Your task to perform on an android device: delete location history Image 0: 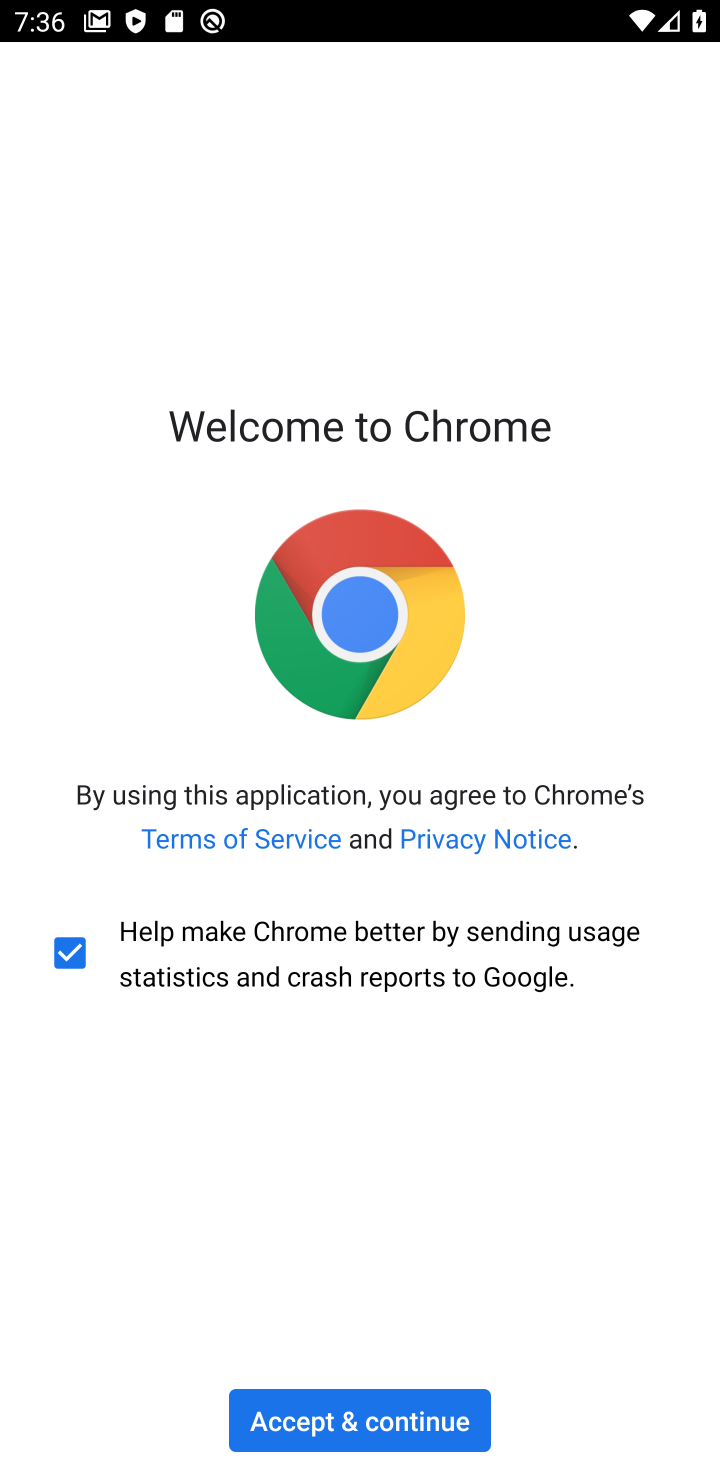
Step 0: press home button
Your task to perform on an android device: delete location history Image 1: 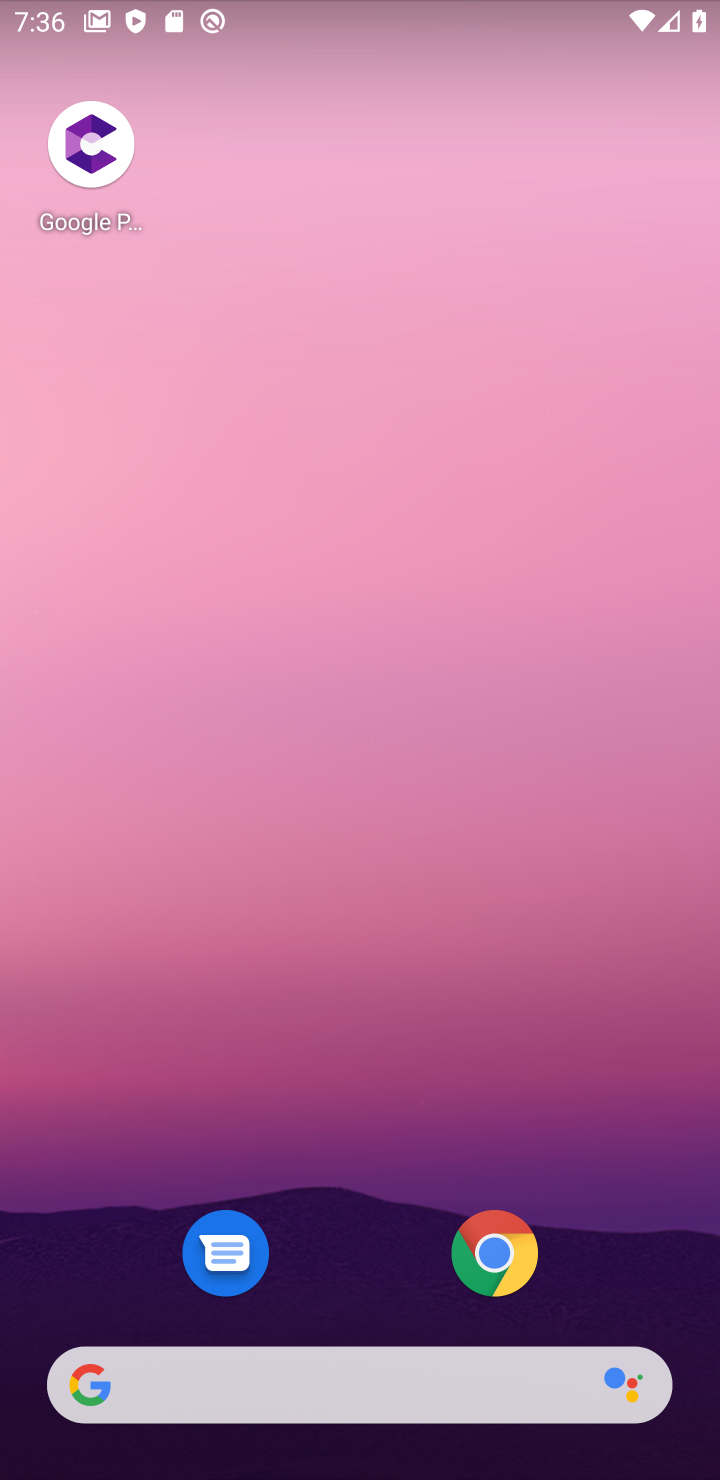
Step 1: drag from (317, 1393) to (457, 87)
Your task to perform on an android device: delete location history Image 2: 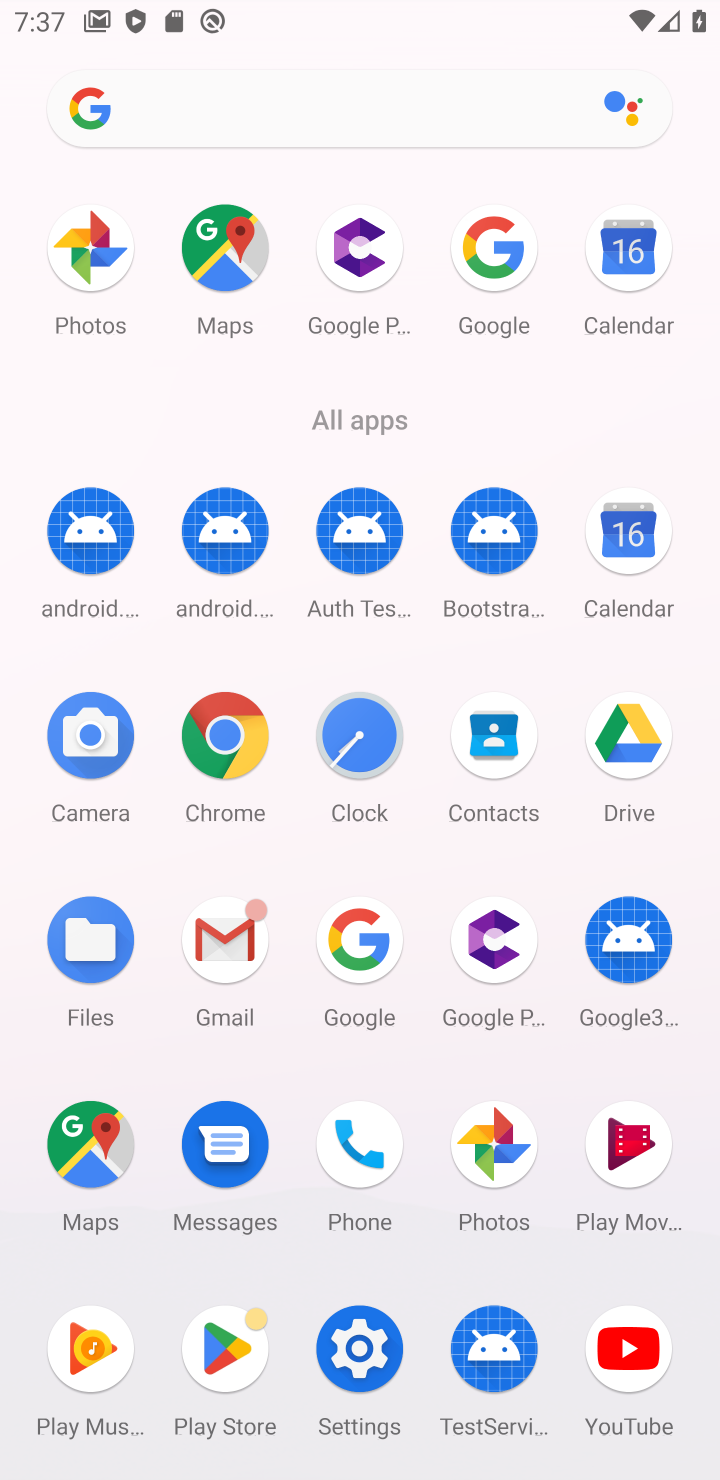
Step 2: click (224, 253)
Your task to perform on an android device: delete location history Image 3: 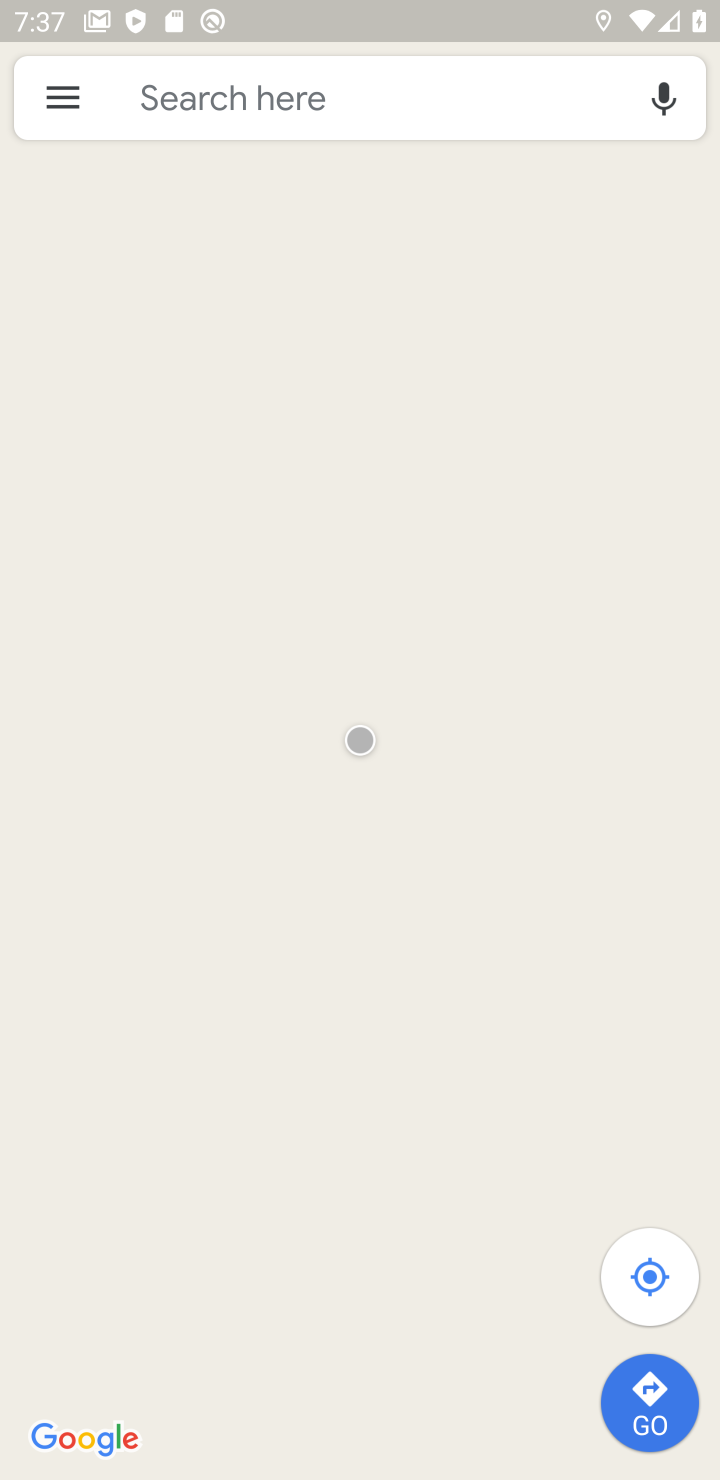
Step 3: click (48, 97)
Your task to perform on an android device: delete location history Image 4: 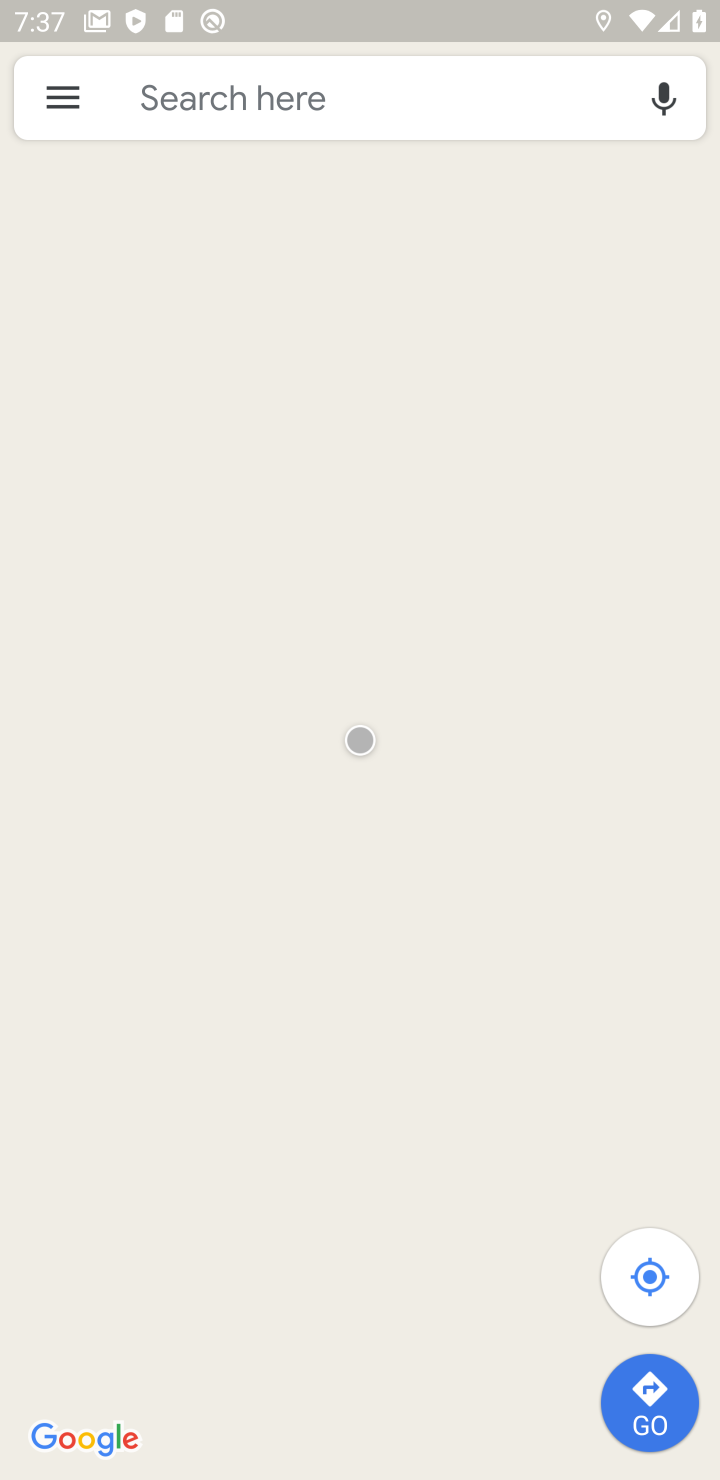
Step 4: click (48, 97)
Your task to perform on an android device: delete location history Image 5: 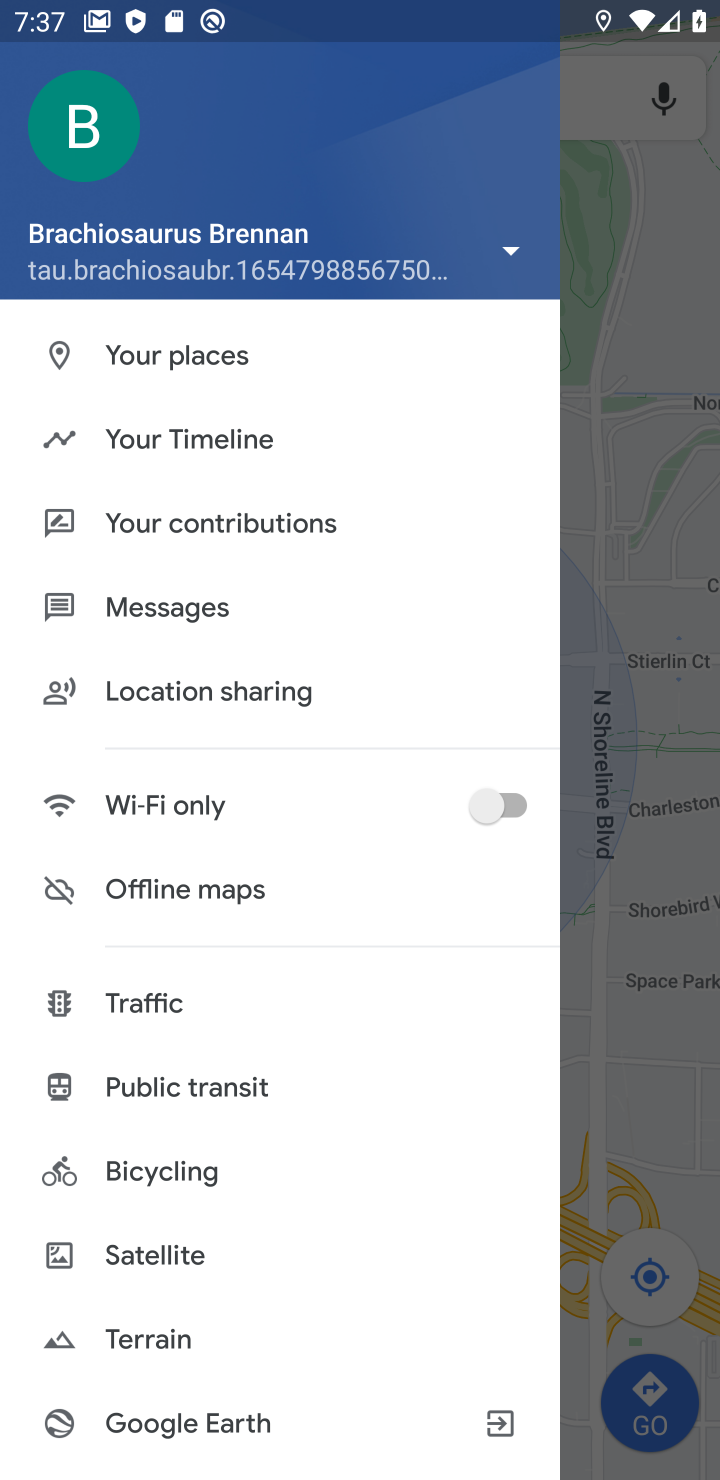
Step 5: drag from (169, 978) to (270, 671)
Your task to perform on an android device: delete location history Image 6: 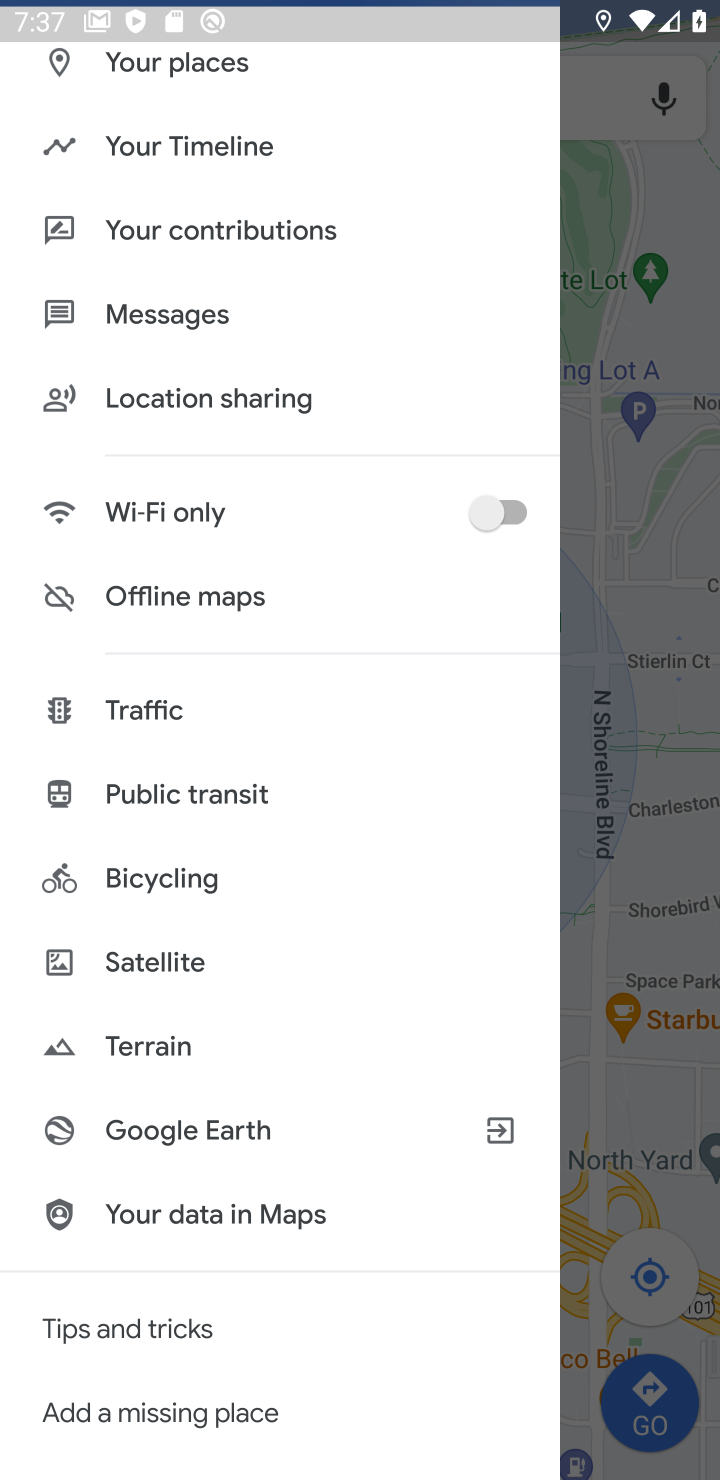
Step 6: drag from (128, 1146) to (259, 916)
Your task to perform on an android device: delete location history Image 7: 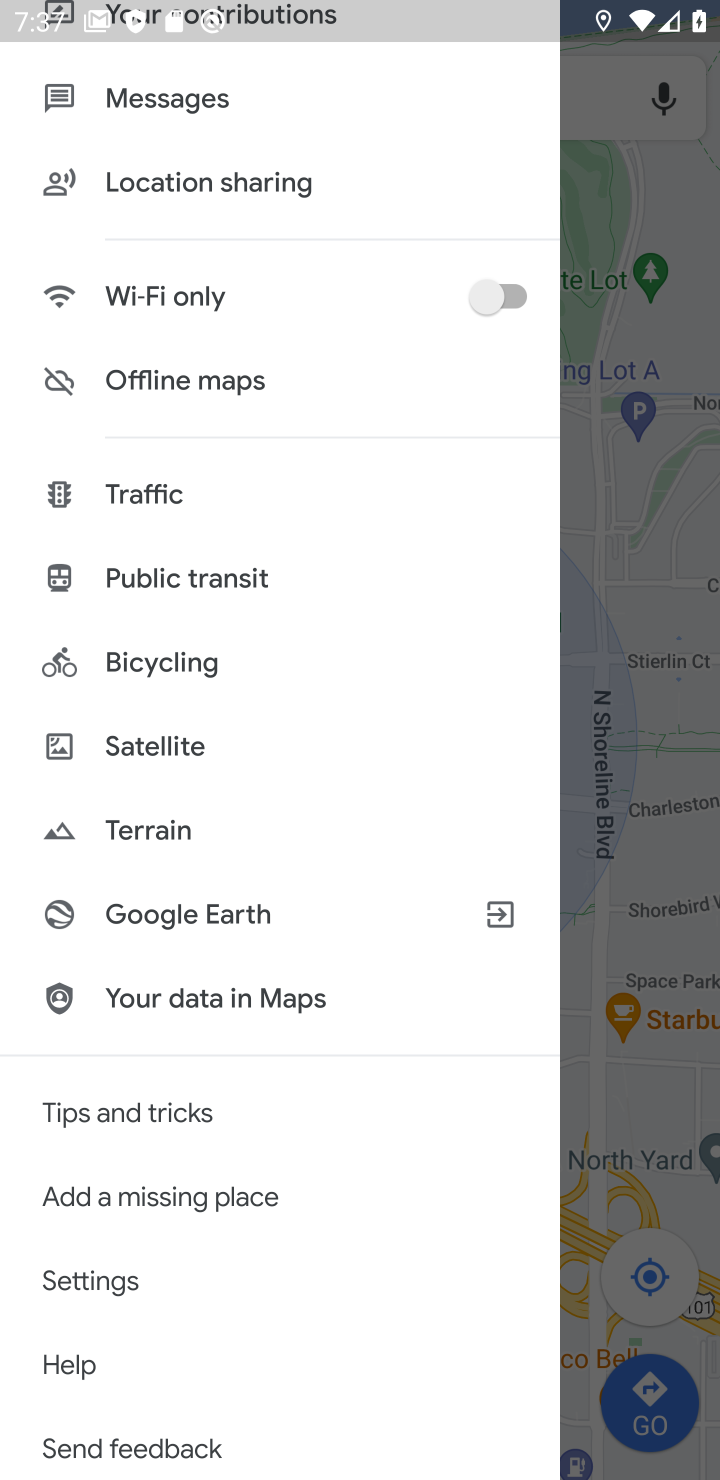
Step 7: click (110, 1281)
Your task to perform on an android device: delete location history Image 8: 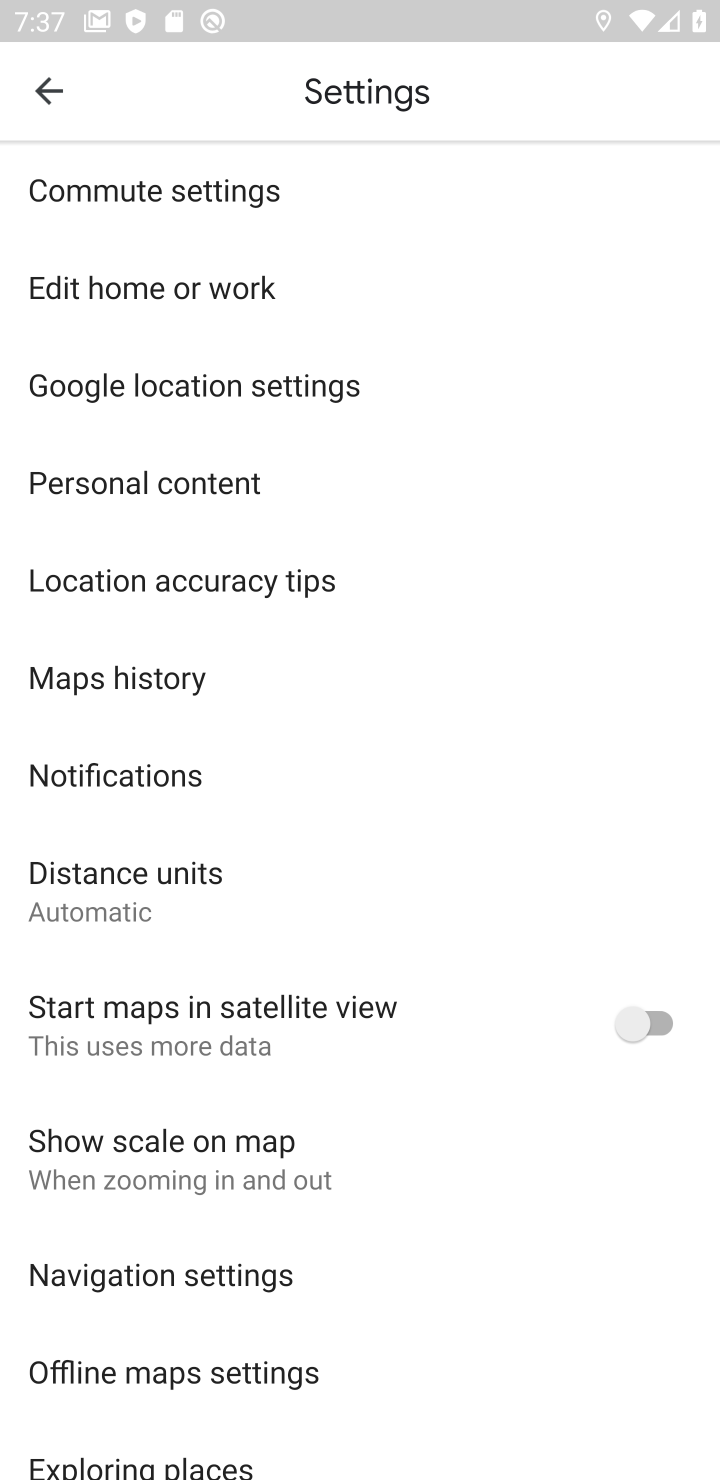
Step 8: click (240, 481)
Your task to perform on an android device: delete location history Image 9: 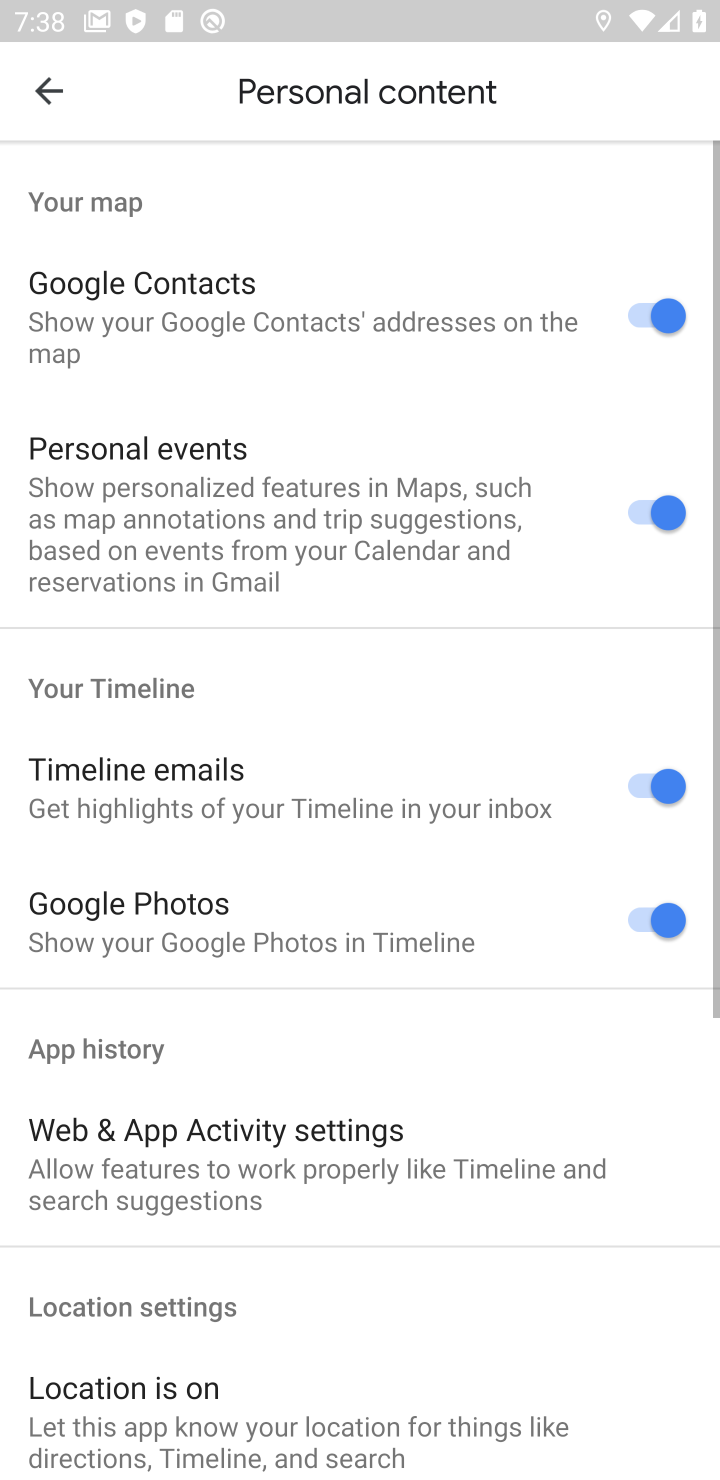
Step 9: drag from (259, 1050) to (407, 824)
Your task to perform on an android device: delete location history Image 10: 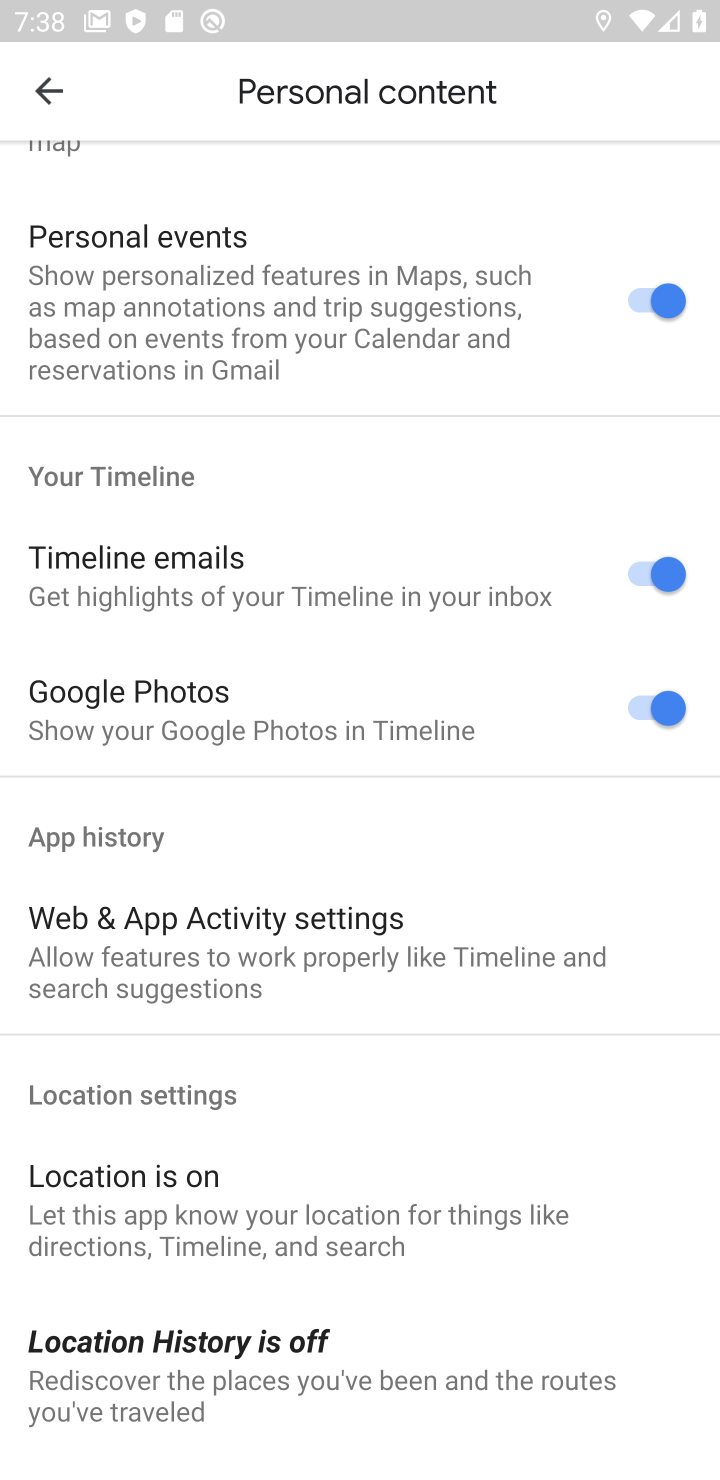
Step 10: drag from (293, 1127) to (414, 887)
Your task to perform on an android device: delete location history Image 11: 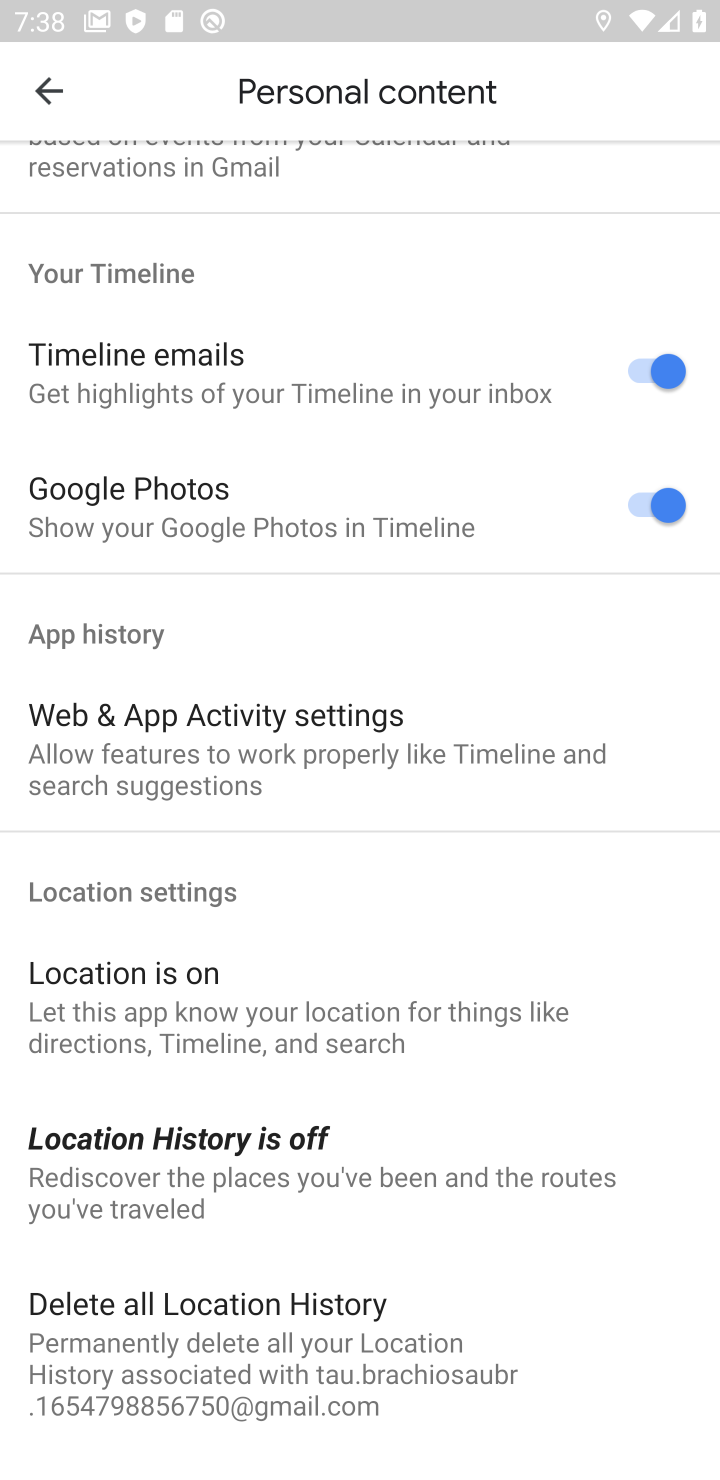
Step 11: drag from (232, 1240) to (439, 961)
Your task to perform on an android device: delete location history Image 12: 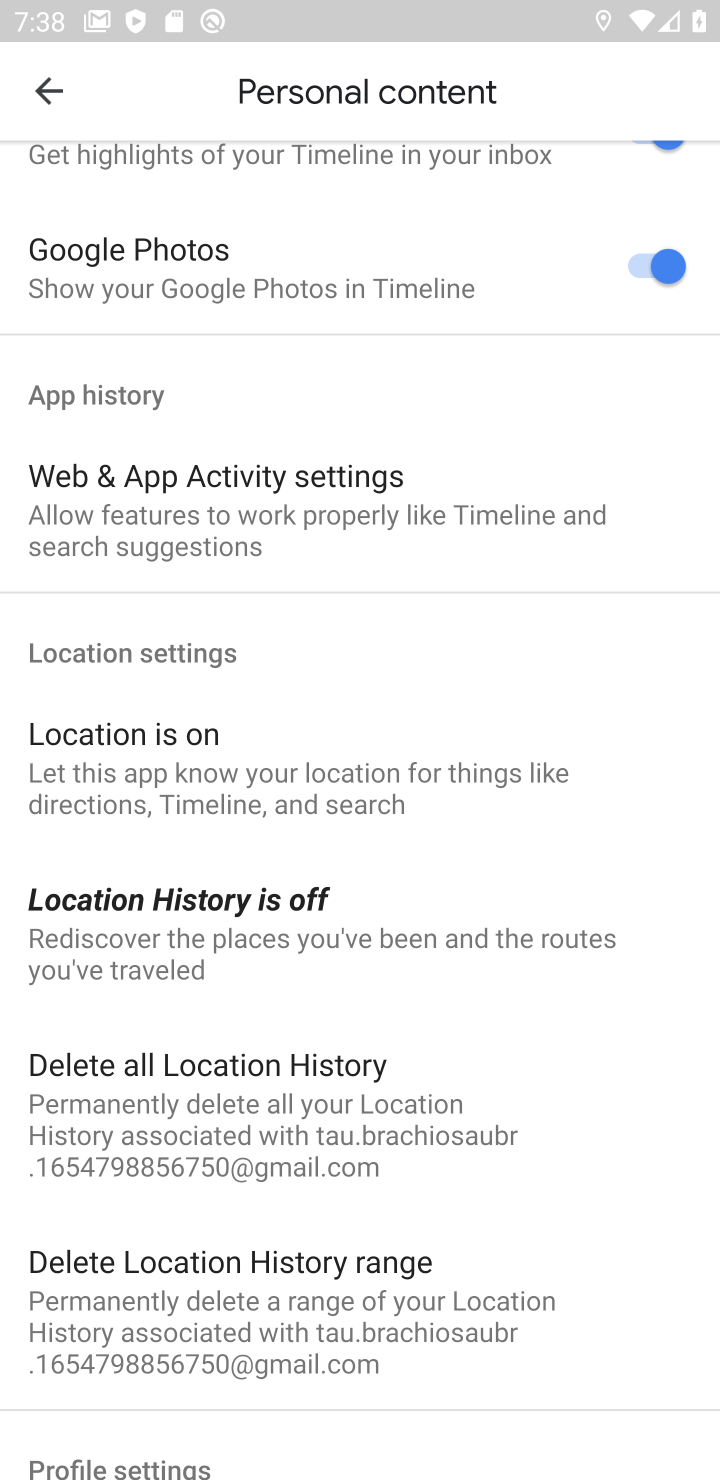
Step 12: click (323, 1070)
Your task to perform on an android device: delete location history Image 13: 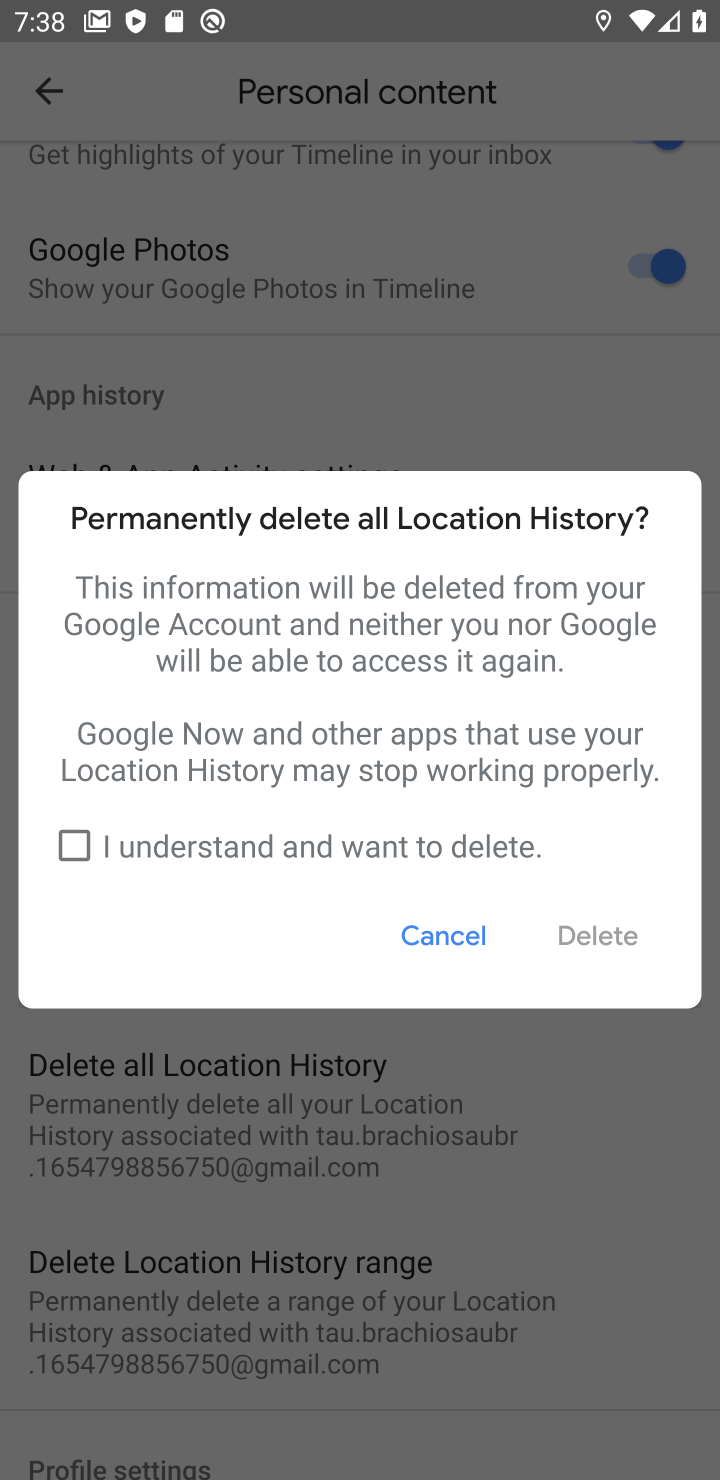
Step 13: click (81, 844)
Your task to perform on an android device: delete location history Image 14: 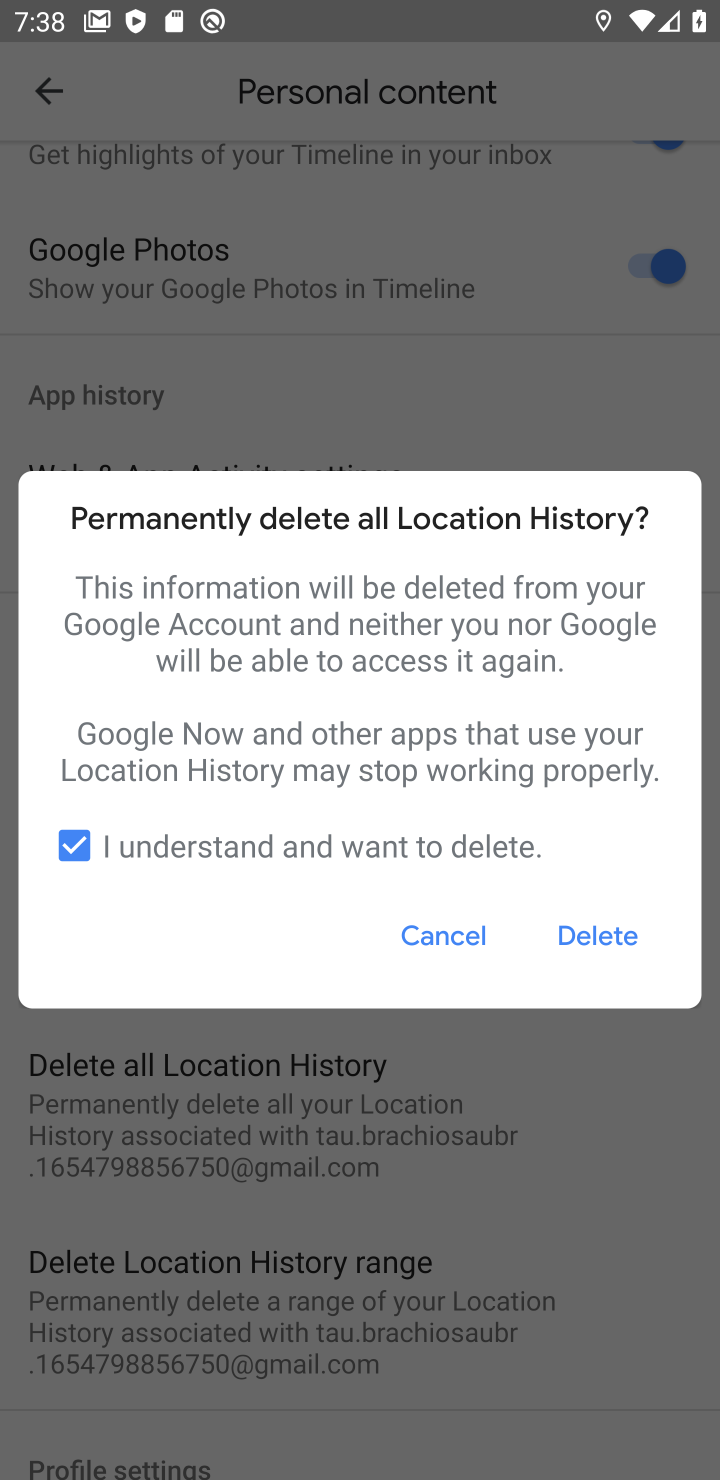
Step 14: click (618, 939)
Your task to perform on an android device: delete location history Image 15: 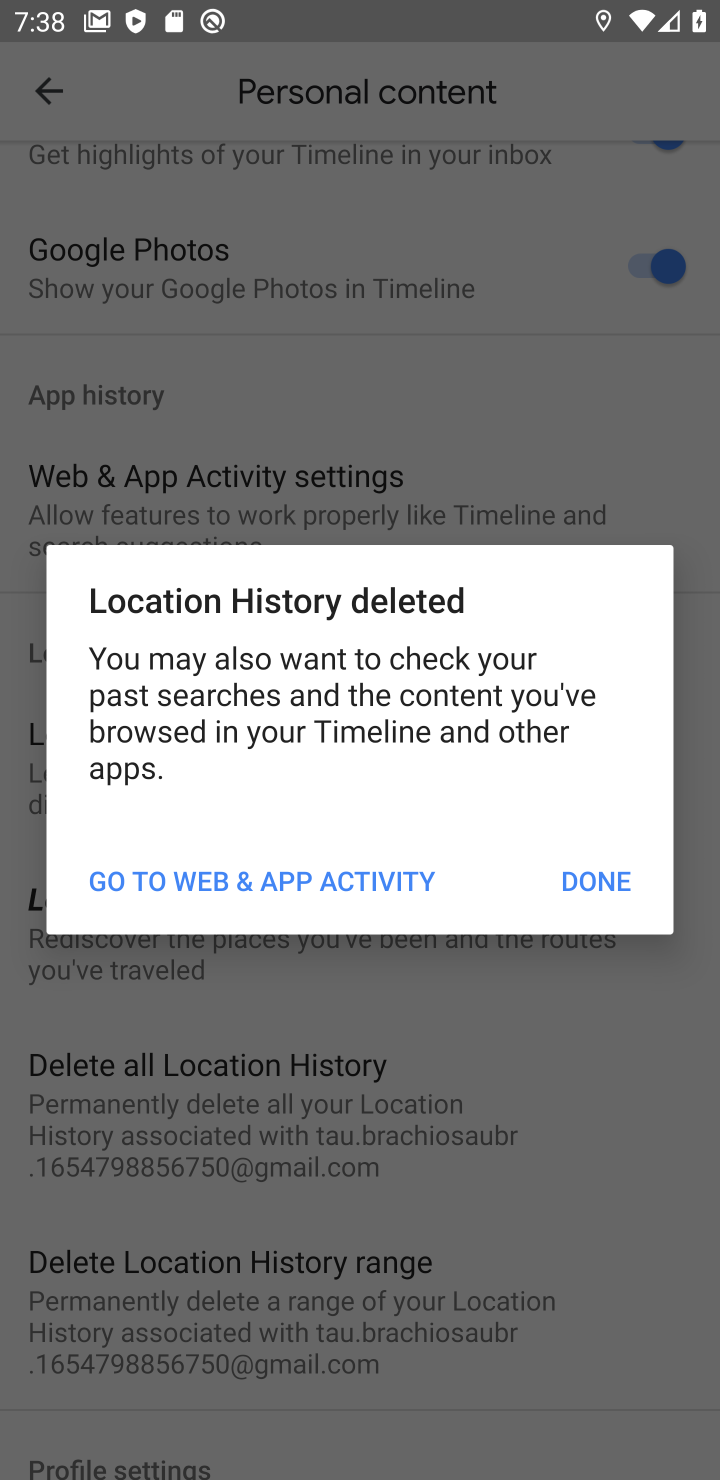
Step 15: click (609, 873)
Your task to perform on an android device: delete location history Image 16: 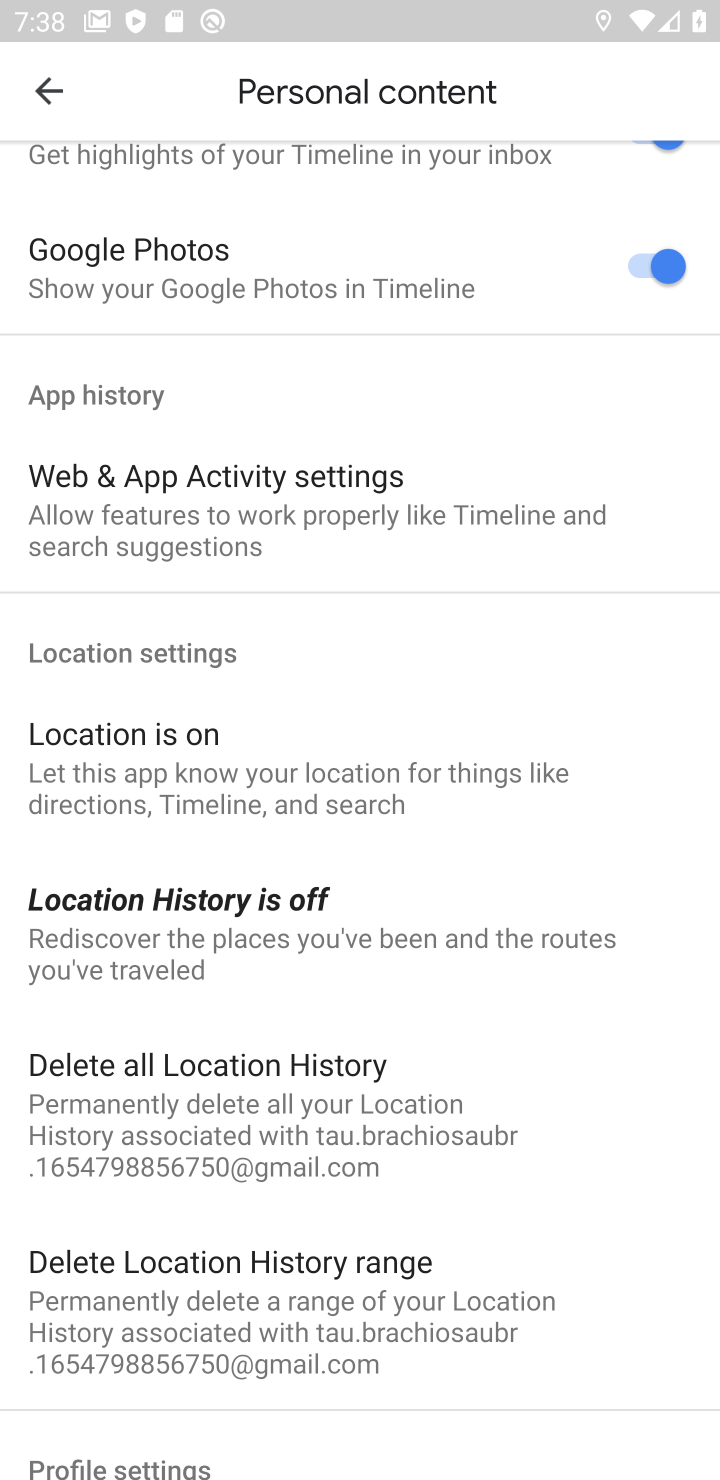
Step 16: task complete